Your task to perform on an android device: What's the weather going to be tomorrow? Image 0: 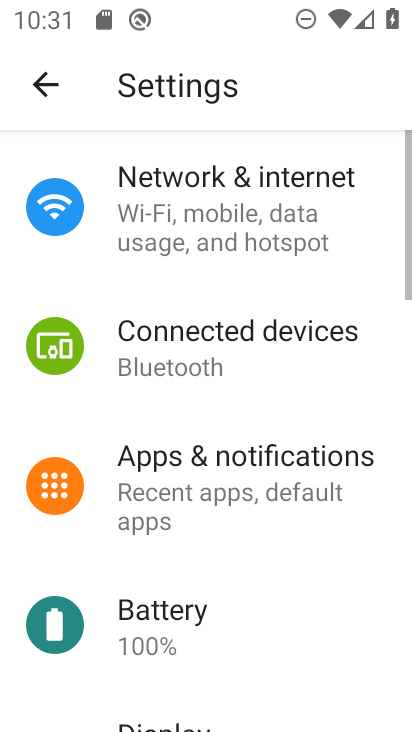
Step 0: press home button
Your task to perform on an android device: What's the weather going to be tomorrow? Image 1: 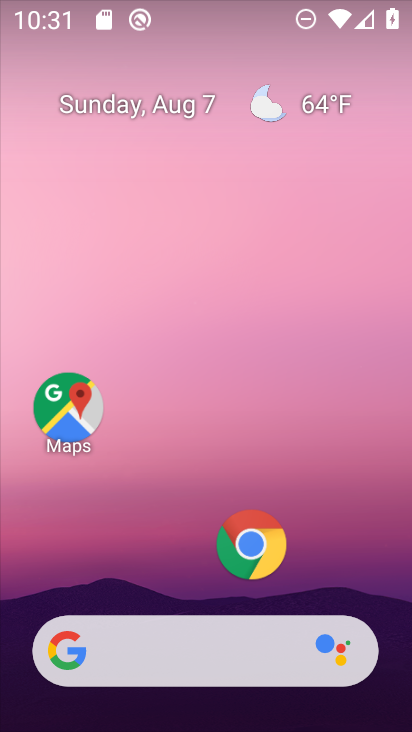
Step 1: click (135, 625)
Your task to perform on an android device: What's the weather going to be tomorrow? Image 2: 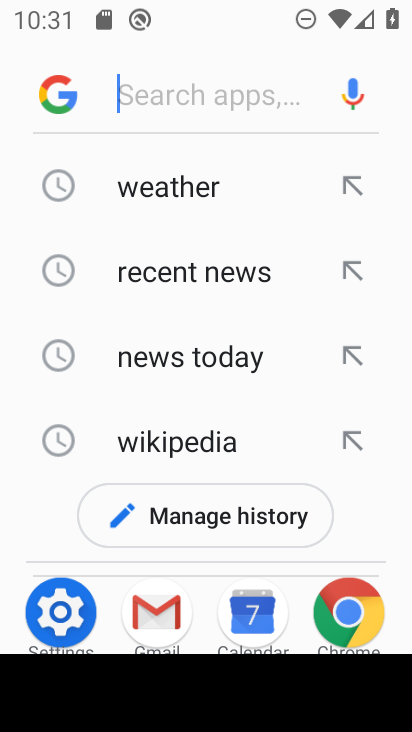
Step 2: click (140, 191)
Your task to perform on an android device: What's the weather going to be tomorrow? Image 3: 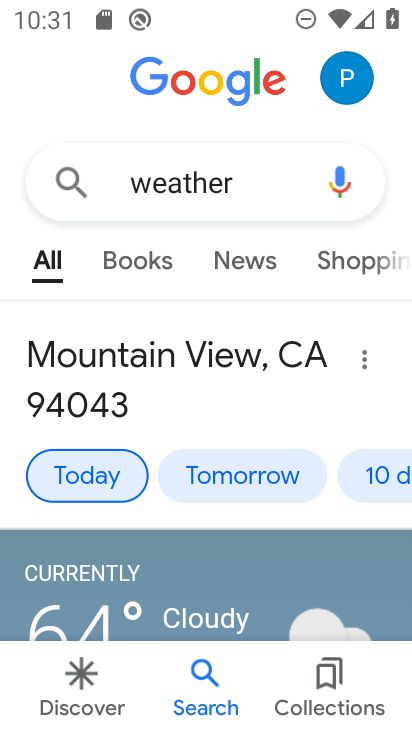
Step 3: click (218, 476)
Your task to perform on an android device: What's the weather going to be tomorrow? Image 4: 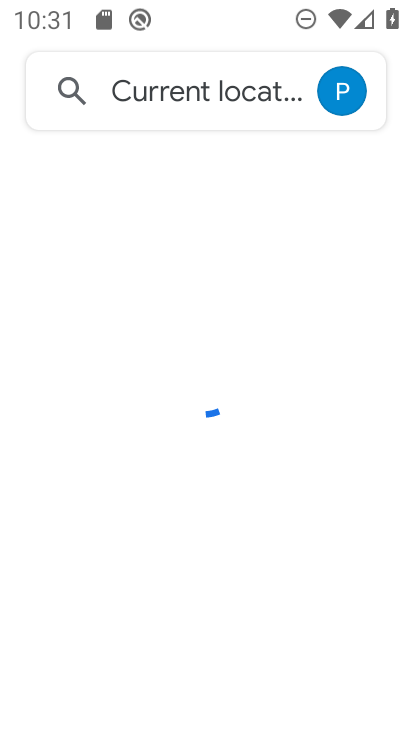
Step 4: task complete